Your task to perform on an android device: set default search engine in the chrome app Image 0: 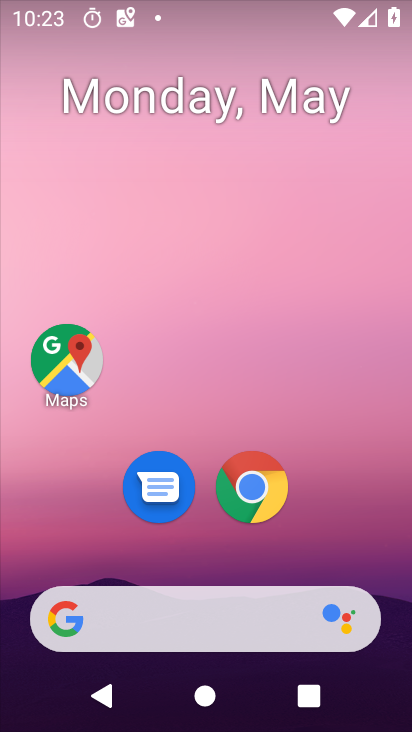
Step 0: click (255, 487)
Your task to perform on an android device: set default search engine in the chrome app Image 1: 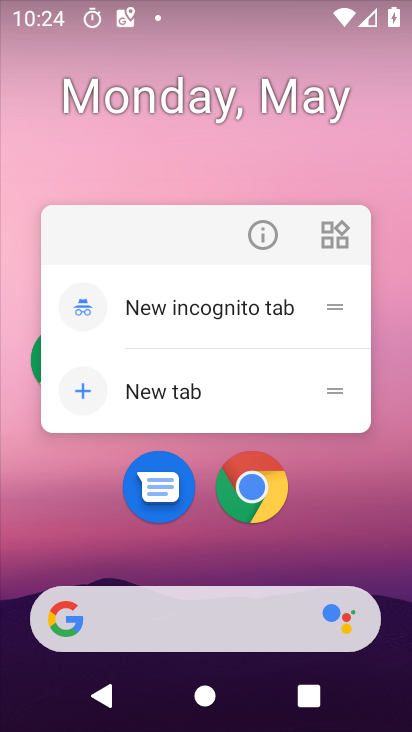
Step 1: click (257, 486)
Your task to perform on an android device: set default search engine in the chrome app Image 2: 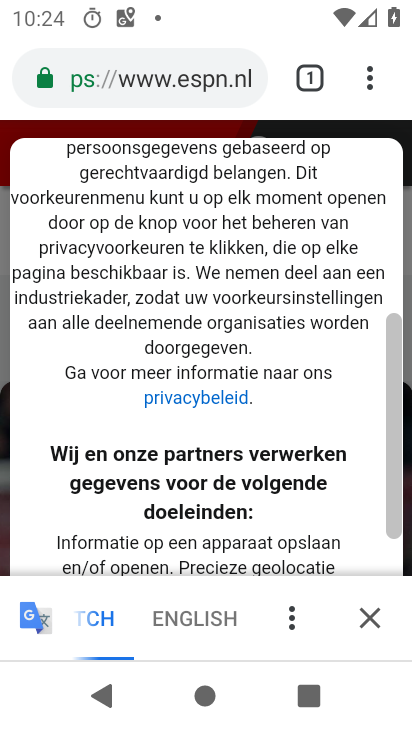
Step 2: click (365, 85)
Your task to perform on an android device: set default search engine in the chrome app Image 3: 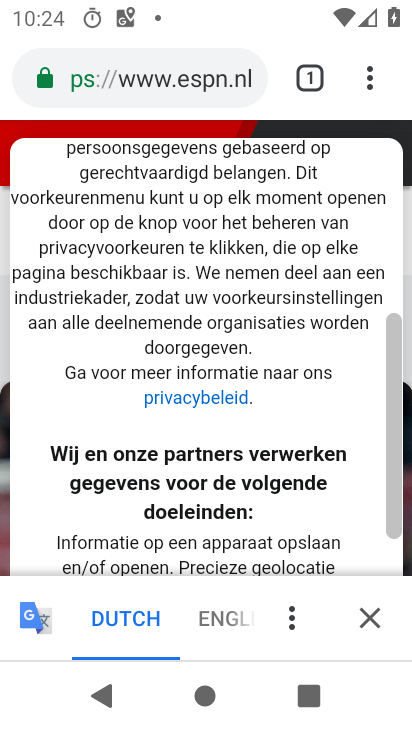
Step 3: click (376, 77)
Your task to perform on an android device: set default search engine in the chrome app Image 4: 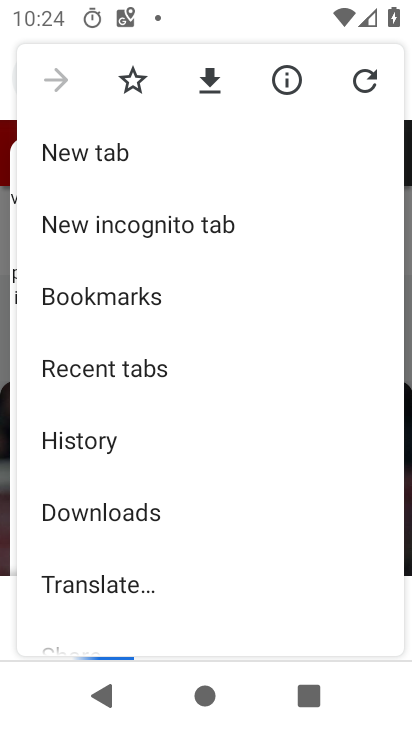
Step 4: drag from (230, 575) to (338, 257)
Your task to perform on an android device: set default search engine in the chrome app Image 5: 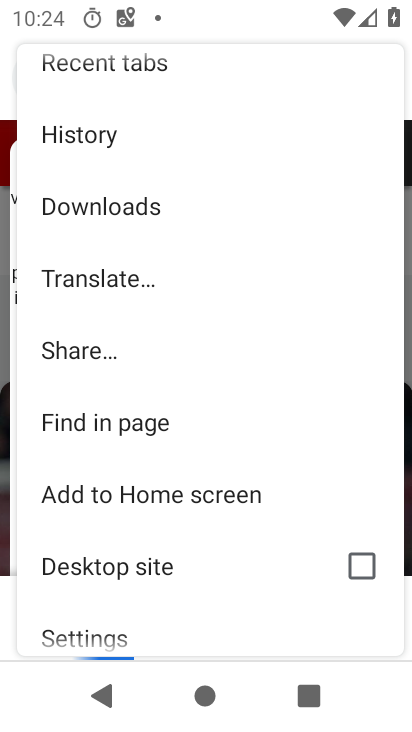
Step 5: click (103, 628)
Your task to perform on an android device: set default search engine in the chrome app Image 6: 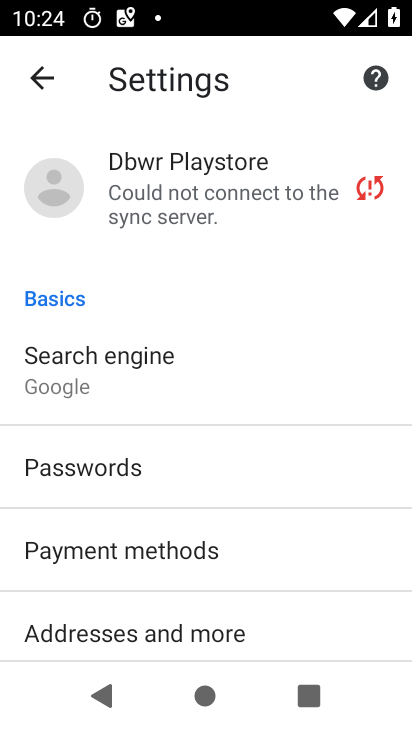
Step 6: drag from (188, 594) to (269, 360)
Your task to perform on an android device: set default search engine in the chrome app Image 7: 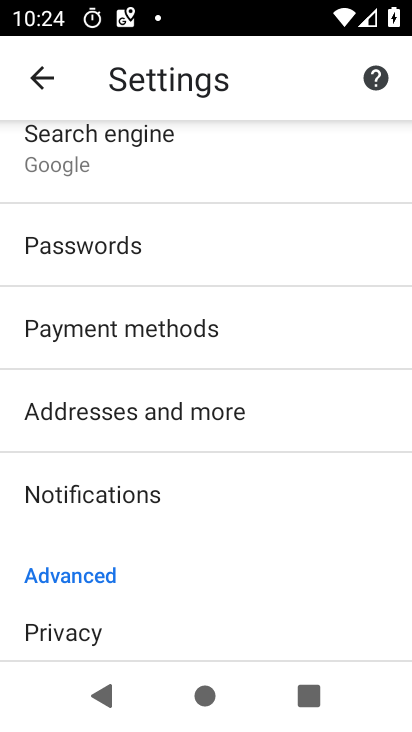
Step 7: drag from (158, 579) to (171, 399)
Your task to perform on an android device: set default search engine in the chrome app Image 8: 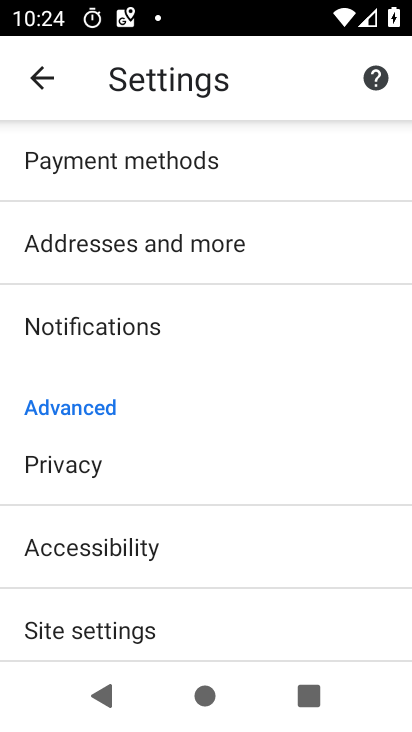
Step 8: drag from (187, 319) to (243, 723)
Your task to perform on an android device: set default search engine in the chrome app Image 9: 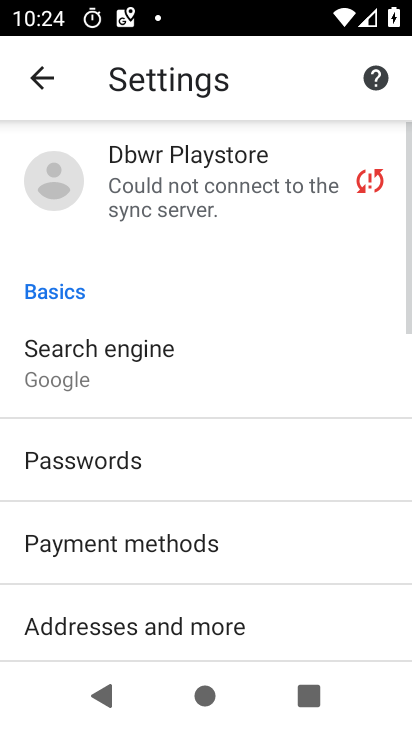
Step 9: click (116, 352)
Your task to perform on an android device: set default search engine in the chrome app Image 10: 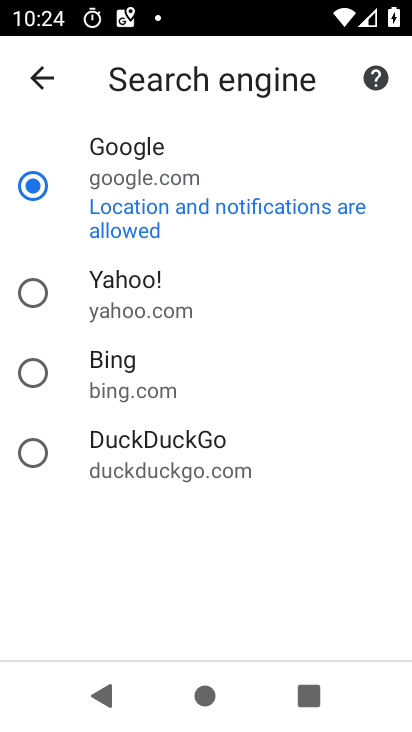
Step 10: click (202, 267)
Your task to perform on an android device: set default search engine in the chrome app Image 11: 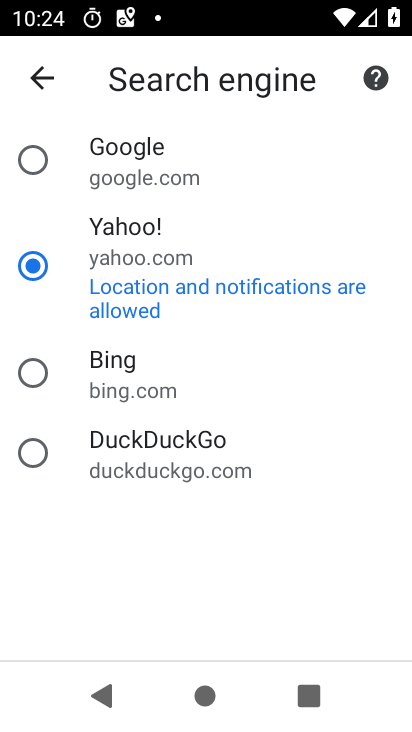
Step 11: task complete